Your task to perform on an android device: How much does a 2 bedroom apartment rent for in Boston? Image 0: 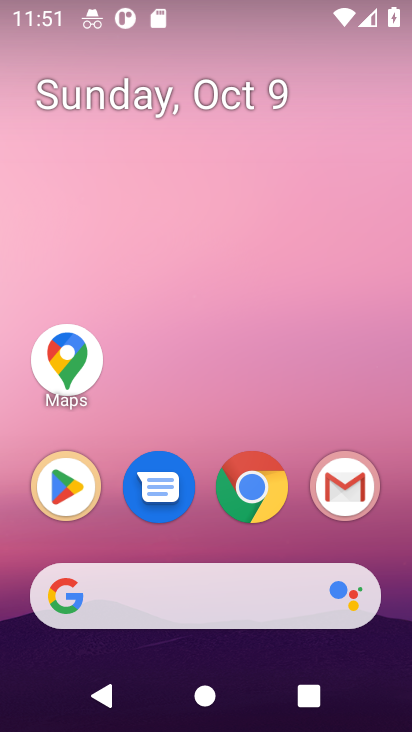
Step 0: click (264, 495)
Your task to perform on an android device: How much does a 2 bedroom apartment rent for in Boston? Image 1: 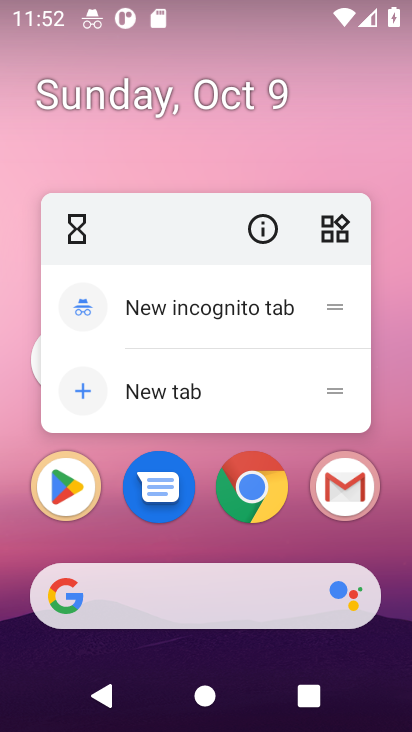
Step 1: click (266, 512)
Your task to perform on an android device: How much does a 2 bedroom apartment rent for in Boston? Image 2: 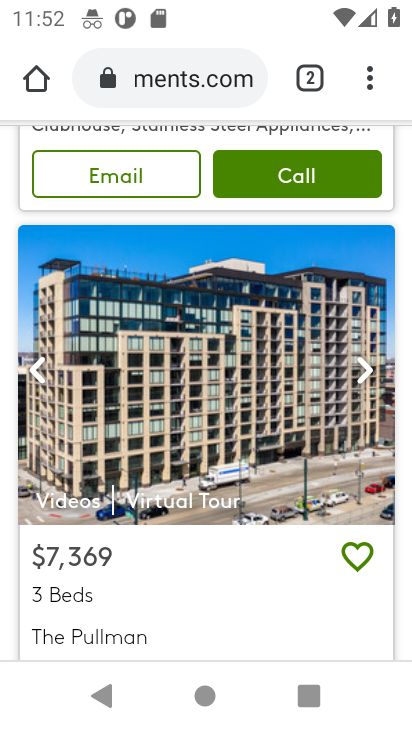
Step 2: click (176, 86)
Your task to perform on an android device: How much does a 2 bedroom apartment rent for in Boston? Image 3: 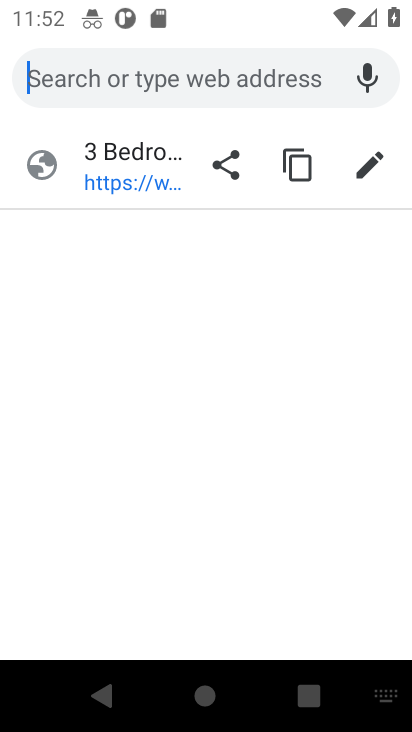
Step 3: type "2 bedroom apartment rent in boston"
Your task to perform on an android device: How much does a 2 bedroom apartment rent for in Boston? Image 4: 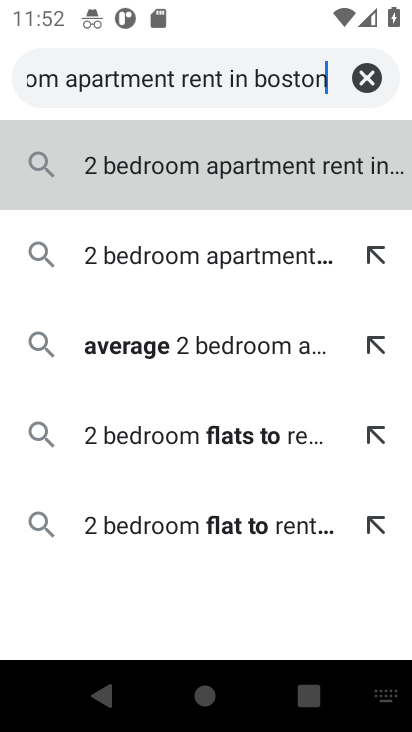
Step 4: press enter
Your task to perform on an android device: How much does a 2 bedroom apartment rent for in Boston? Image 5: 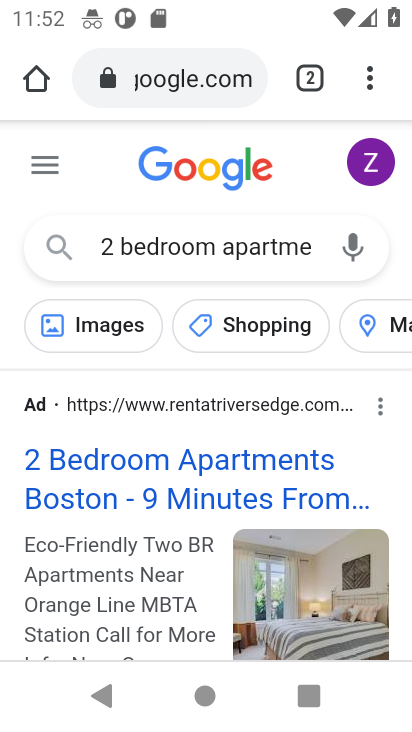
Step 5: drag from (127, 553) to (139, 117)
Your task to perform on an android device: How much does a 2 bedroom apartment rent for in Boston? Image 6: 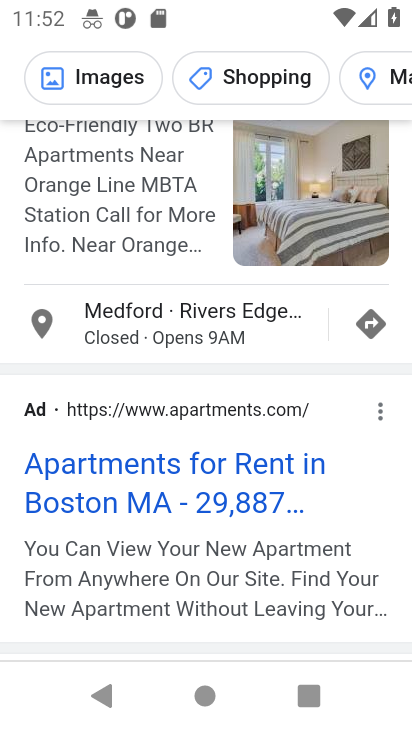
Step 6: drag from (101, 599) to (116, 323)
Your task to perform on an android device: How much does a 2 bedroom apartment rent for in Boston? Image 7: 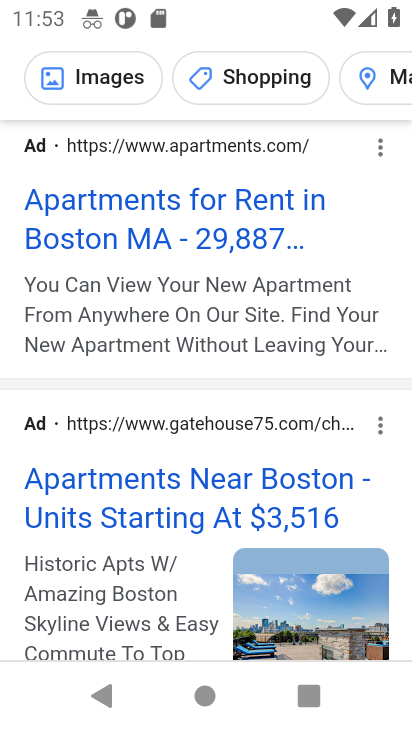
Step 7: click (128, 224)
Your task to perform on an android device: How much does a 2 bedroom apartment rent for in Boston? Image 8: 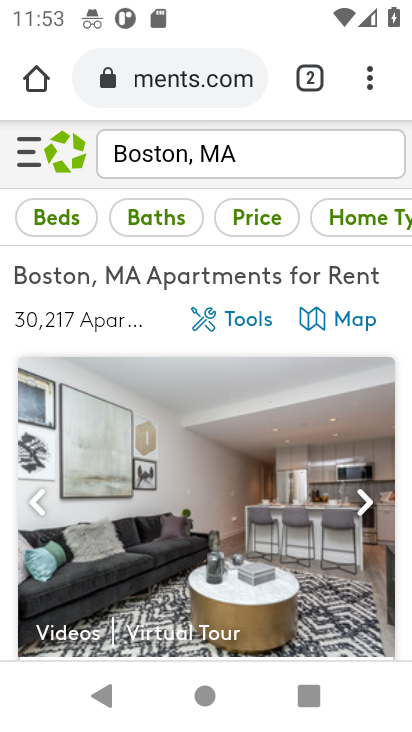
Step 8: task complete